Your task to perform on an android device: change notification settings in the gmail app Image 0: 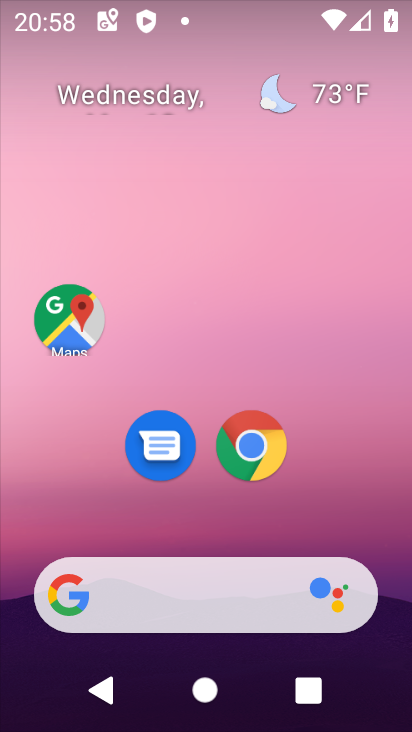
Step 0: drag from (346, 505) to (290, 111)
Your task to perform on an android device: change notification settings in the gmail app Image 1: 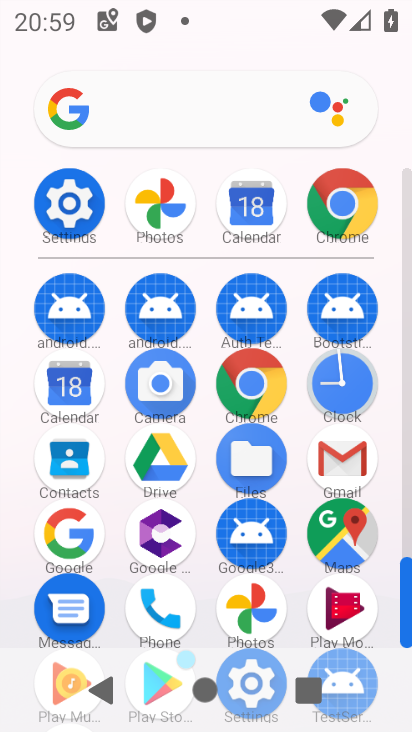
Step 1: click (343, 463)
Your task to perform on an android device: change notification settings in the gmail app Image 2: 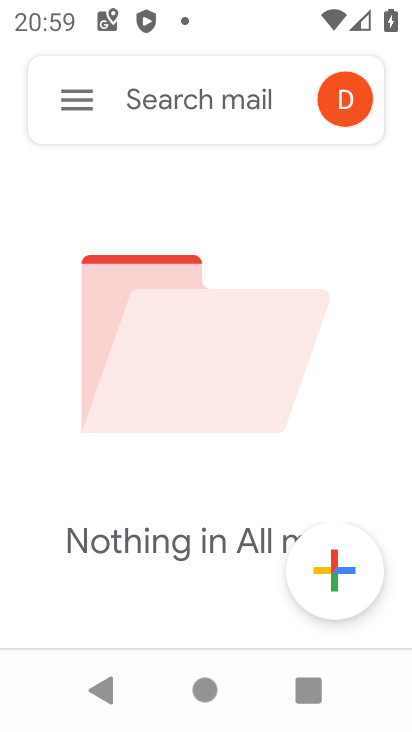
Step 2: click (79, 102)
Your task to perform on an android device: change notification settings in the gmail app Image 3: 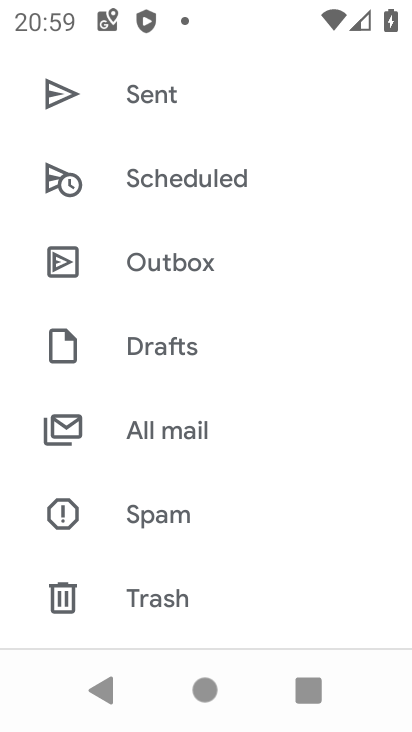
Step 3: drag from (255, 559) to (338, 8)
Your task to perform on an android device: change notification settings in the gmail app Image 4: 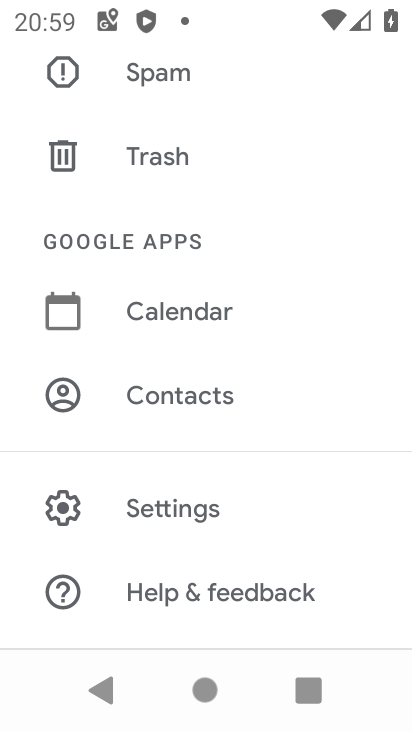
Step 4: click (190, 497)
Your task to perform on an android device: change notification settings in the gmail app Image 5: 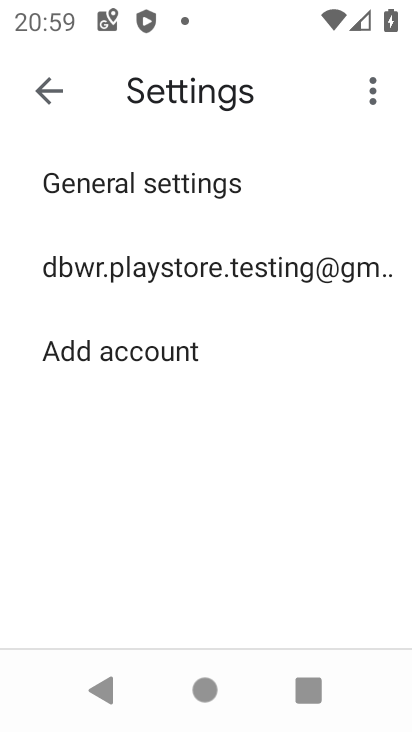
Step 5: click (190, 271)
Your task to perform on an android device: change notification settings in the gmail app Image 6: 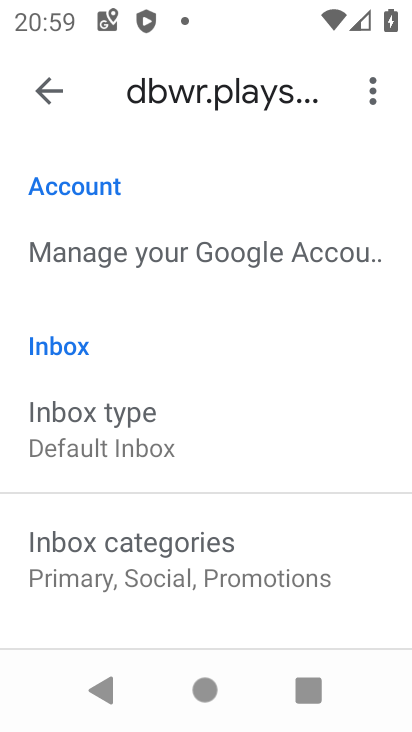
Step 6: drag from (171, 576) to (253, 206)
Your task to perform on an android device: change notification settings in the gmail app Image 7: 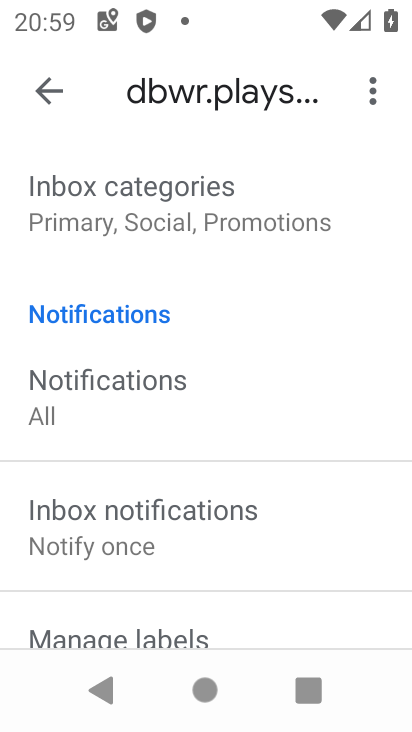
Step 7: click (100, 408)
Your task to perform on an android device: change notification settings in the gmail app Image 8: 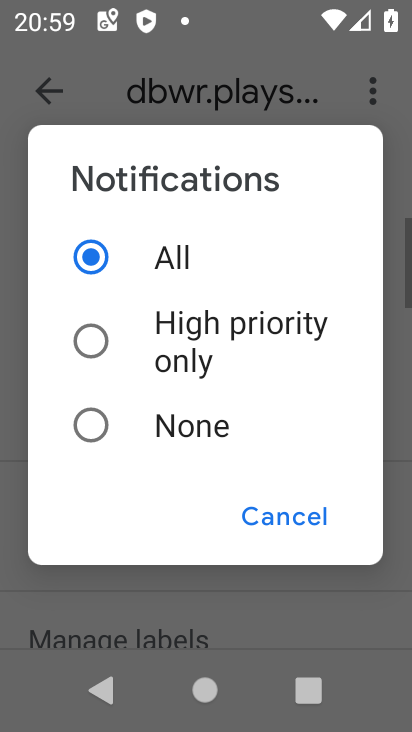
Step 8: click (105, 419)
Your task to perform on an android device: change notification settings in the gmail app Image 9: 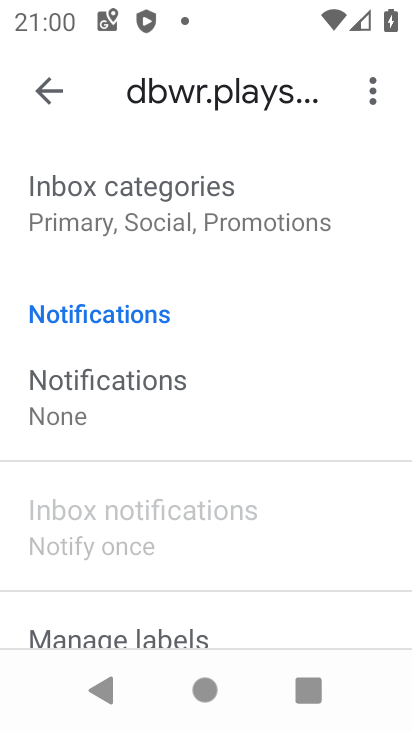
Step 9: task complete